Your task to perform on an android device: set an alarm Image 0: 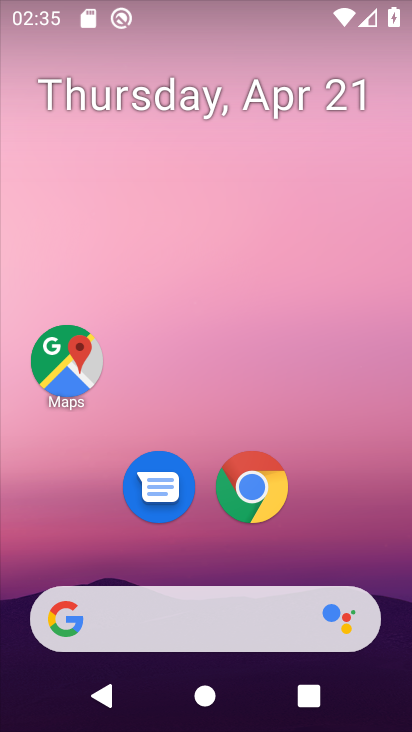
Step 0: drag from (218, 566) to (323, 144)
Your task to perform on an android device: set an alarm Image 1: 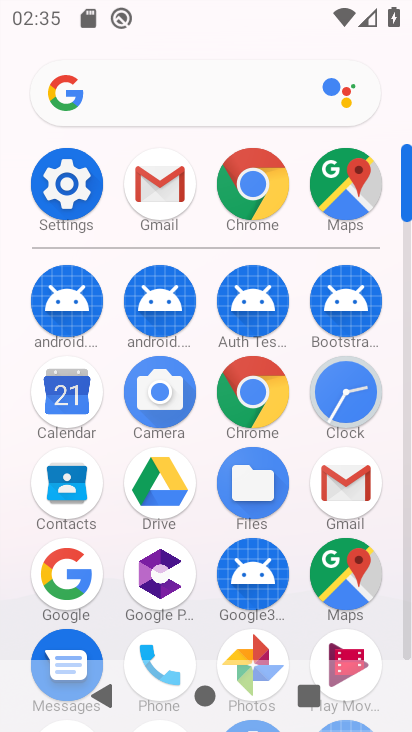
Step 1: click (340, 397)
Your task to perform on an android device: set an alarm Image 2: 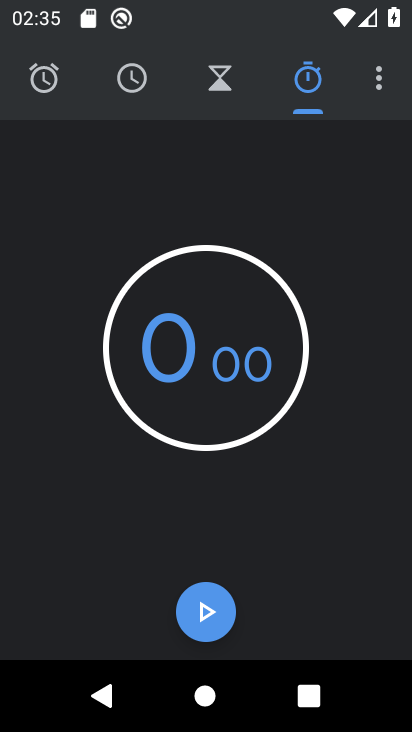
Step 2: drag from (147, 464) to (270, 86)
Your task to perform on an android device: set an alarm Image 3: 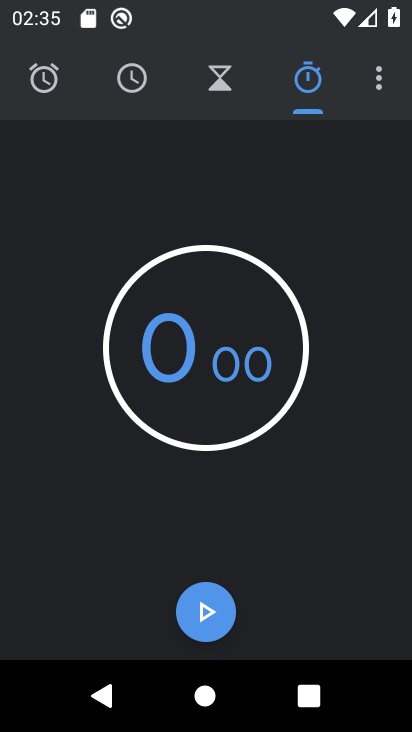
Step 3: click (45, 62)
Your task to perform on an android device: set an alarm Image 4: 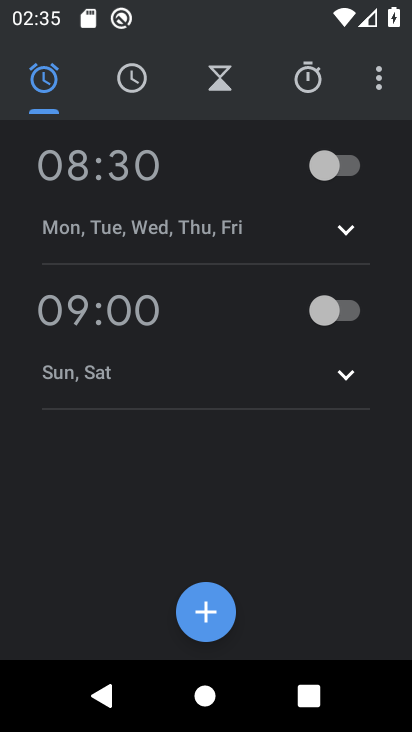
Step 4: click (354, 315)
Your task to perform on an android device: set an alarm Image 5: 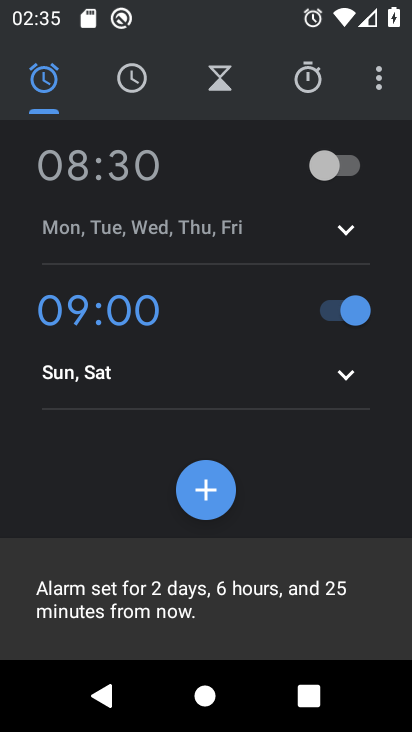
Step 5: task complete